Your task to perform on an android device: turn on bluetooth scan Image 0: 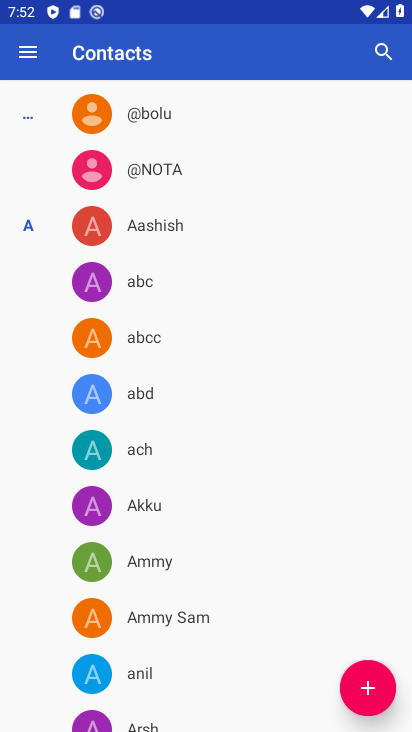
Step 0: press back button
Your task to perform on an android device: turn on bluetooth scan Image 1: 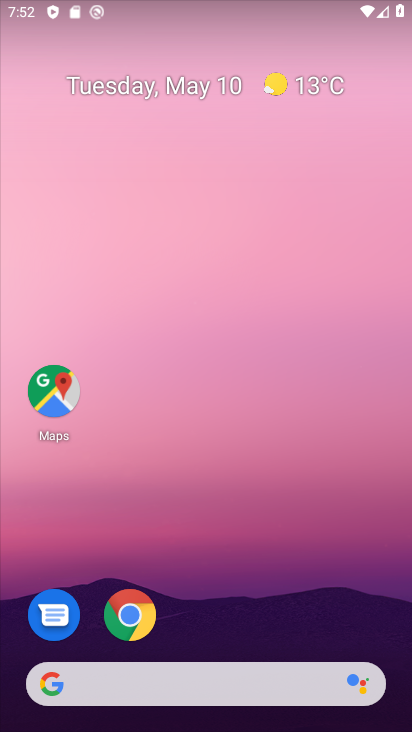
Step 1: drag from (259, 651) to (220, 0)
Your task to perform on an android device: turn on bluetooth scan Image 2: 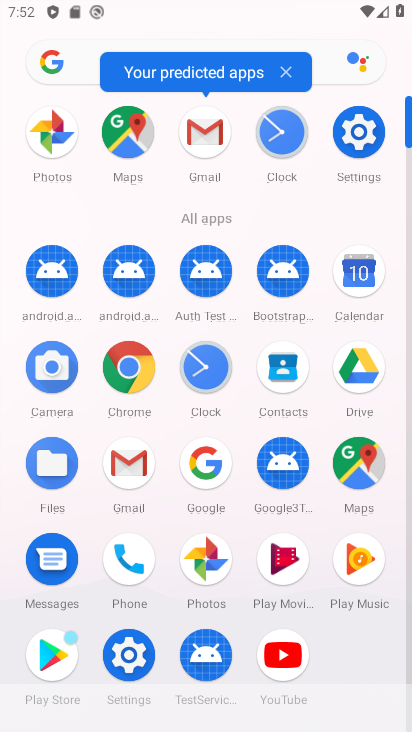
Step 2: click (364, 130)
Your task to perform on an android device: turn on bluetooth scan Image 3: 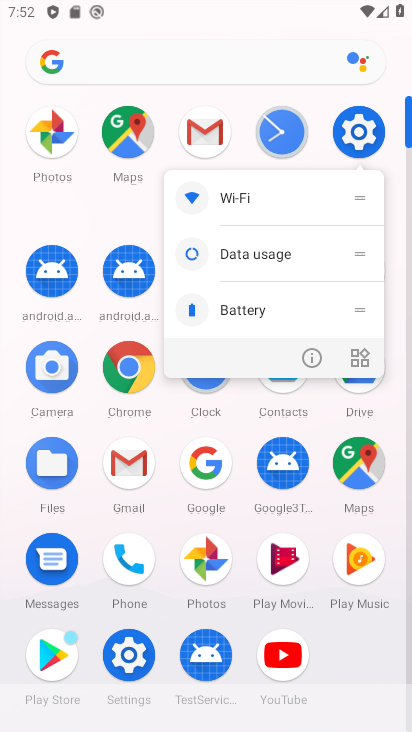
Step 3: click (364, 131)
Your task to perform on an android device: turn on bluetooth scan Image 4: 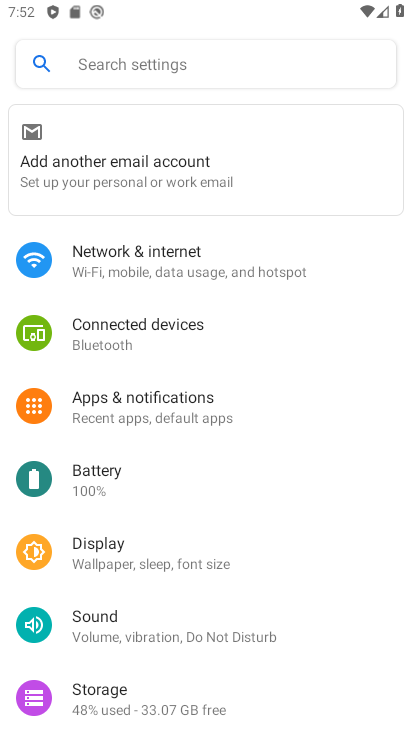
Step 4: click (221, 329)
Your task to perform on an android device: turn on bluetooth scan Image 5: 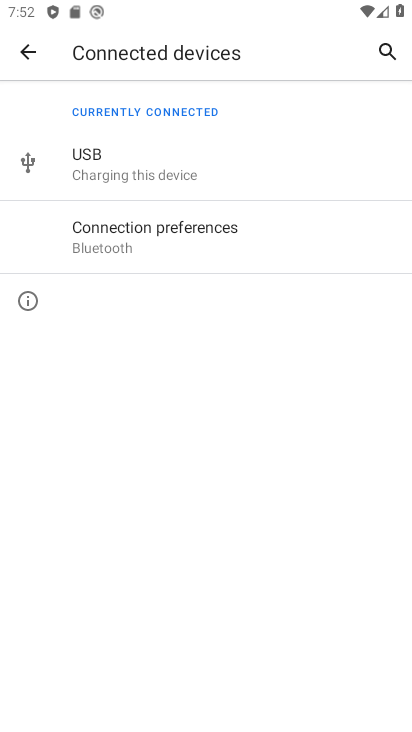
Step 5: click (204, 237)
Your task to perform on an android device: turn on bluetooth scan Image 6: 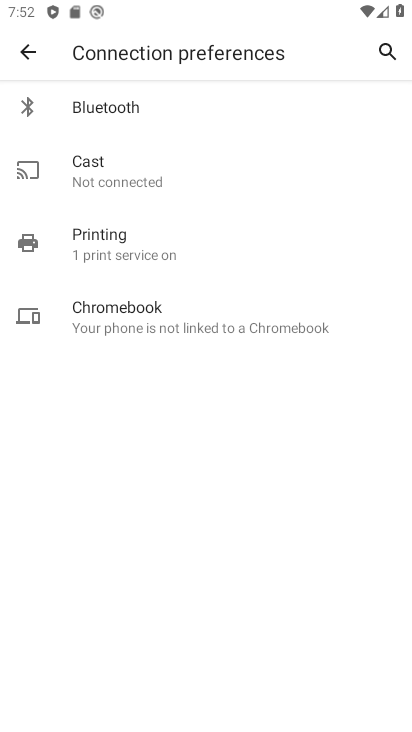
Step 6: click (183, 112)
Your task to perform on an android device: turn on bluetooth scan Image 7: 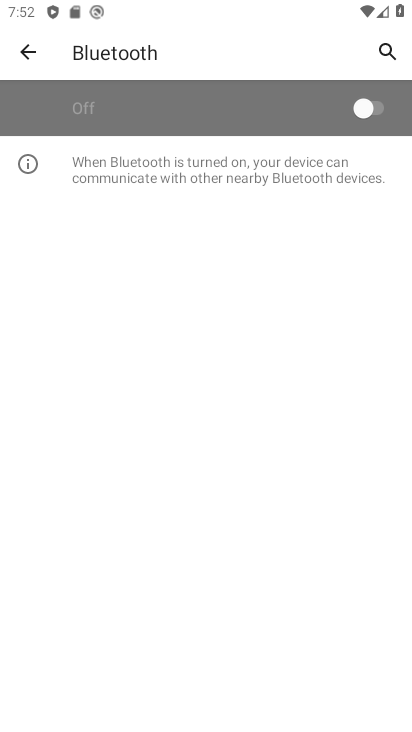
Step 7: click (373, 110)
Your task to perform on an android device: turn on bluetooth scan Image 8: 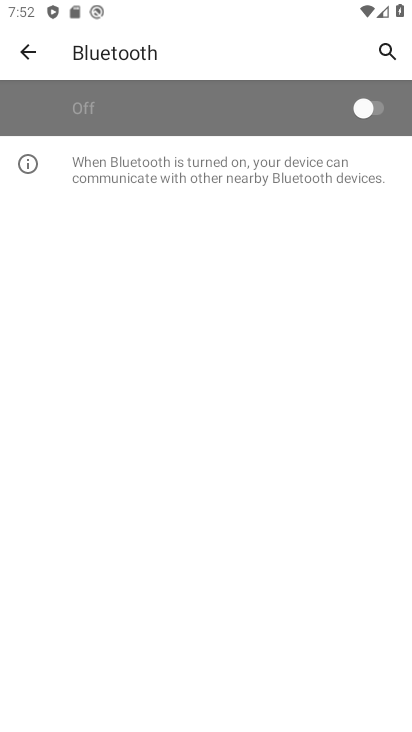
Step 8: click (365, 103)
Your task to perform on an android device: turn on bluetooth scan Image 9: 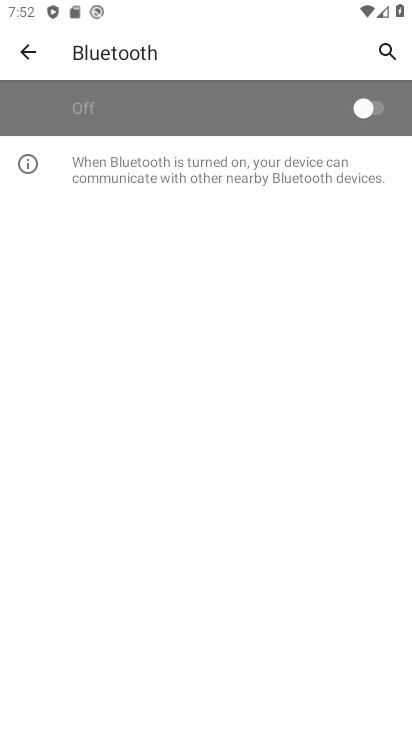
Step 9: click (365, 103)
Your task to perform on an android device: turn on bluetooth scan Image 10: 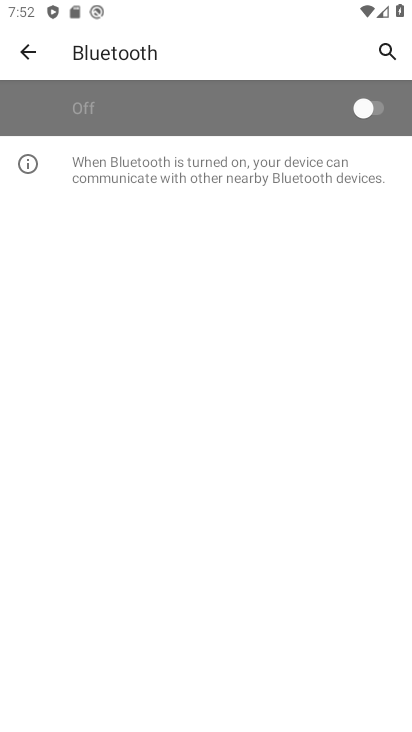
Step 10: click (364, 104)
Your task to perform on an android device: turn on bluetooth scan Image 11: 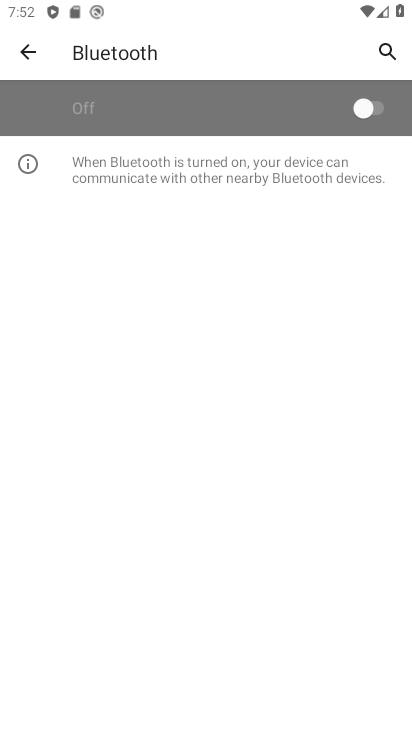
Step 11: click (365, 104)
Your task to perform on an android device: turn on bluetooth scan Image 12: 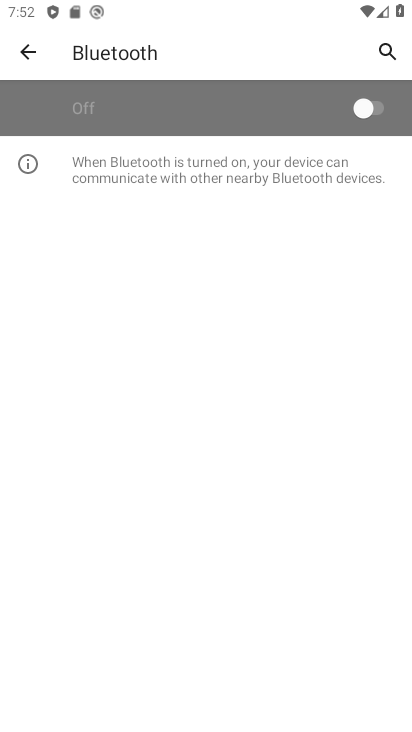
Step 12: task complete